Your task to perform on an android device: toggle translation in the chrome app Image 0: 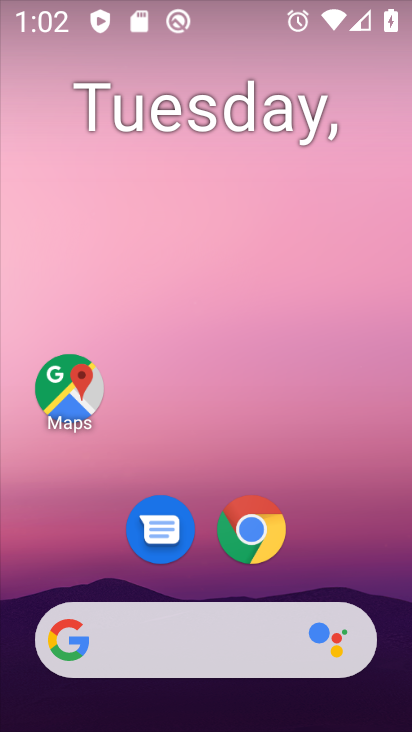
Step 0: click (257, 542)
Your task to perform on an android device: toggle translation in the chrome app Image 1: 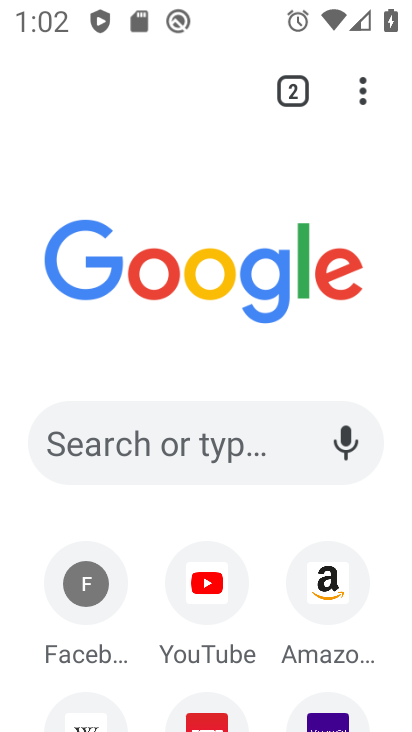
Step 1: drag from (372, 72) to (93, 553)
Your task to perform on an android device: toggle translation in the chrome app Image 2: 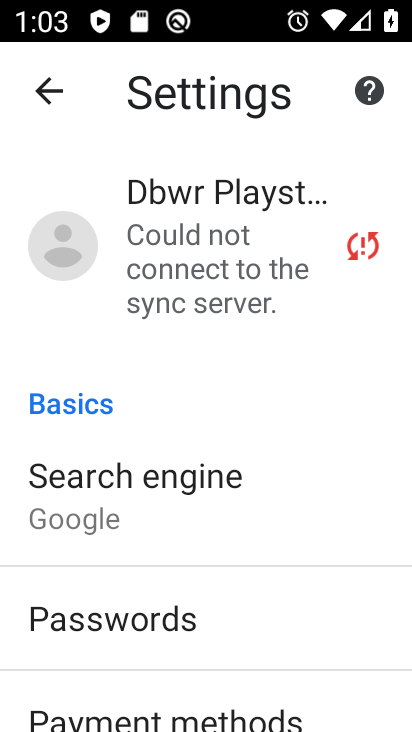
Step 2: drag from (128, 586) to (131, 83)
Your task to perform on an android device: toggle translation in the chrome app Image 3: 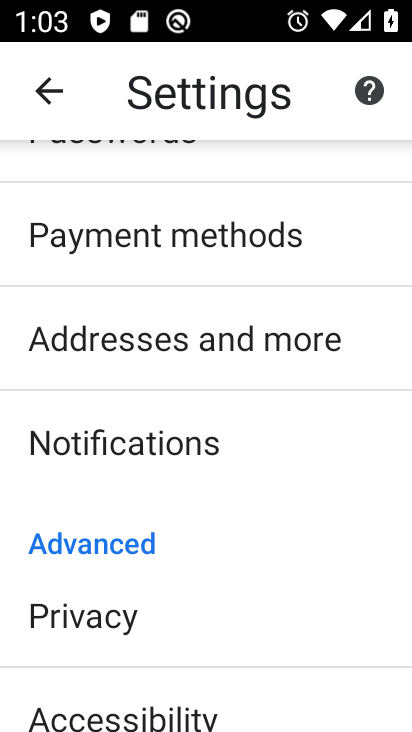
Step 3: drag from (110, 576) to (164, 83)
Your task to perform on an android device: toggle translation in the chrome app Image 4: 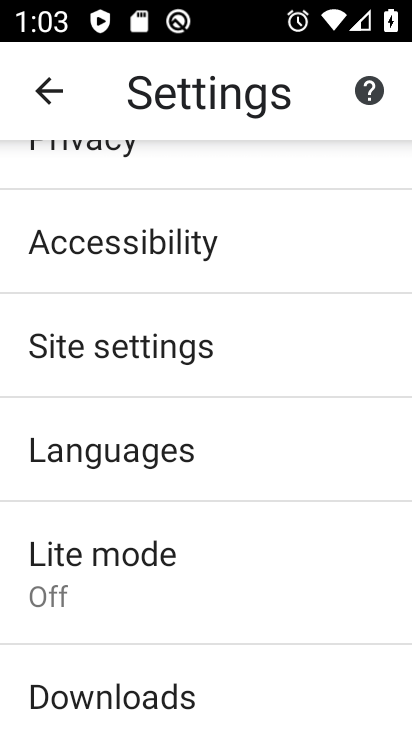
Step 4: click (156, 467)
Your task to perform on an android device: toggle translation in the chrome app Image 5: 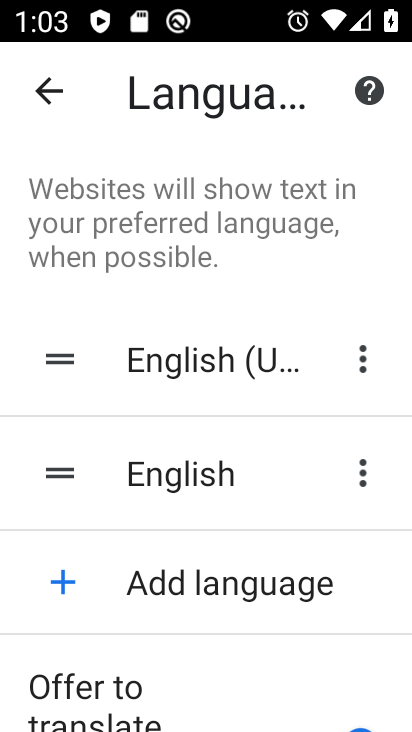
Step 5: drag from (153, 624) to (176, 71)
Your task to perform on an android device: toggle translation in the chrome app Image 6: 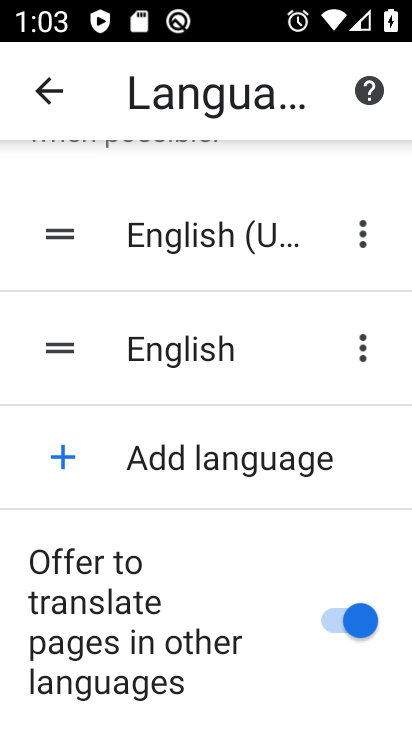
Step 6: click (350, 634)
Your task to perform on an android device: toggle translation in the chrome app Image 7: 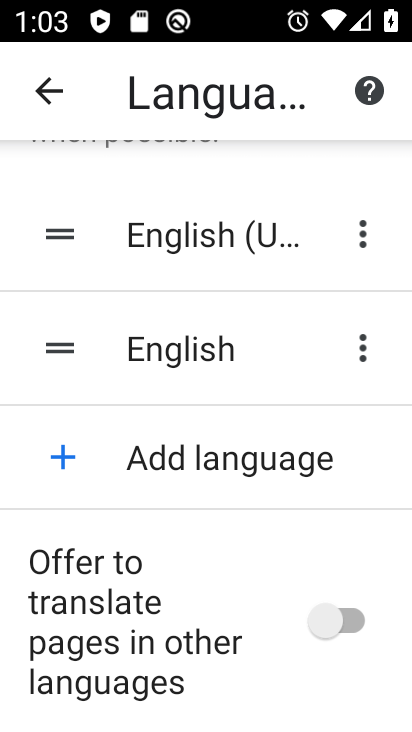
Step 7: task complete